Your task to perform on an android device: open the mobile data screen to see how much data has been used Image 0: 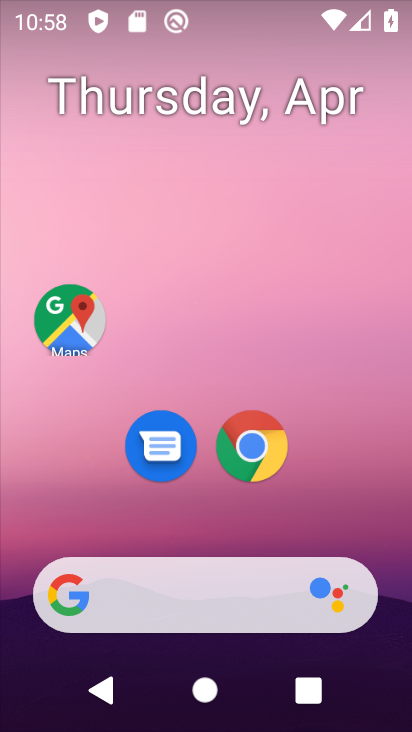
Step 0: click (211, 201)
Your task to perform on an android device: open the mobile data screen to see how much data has been used Image 1: 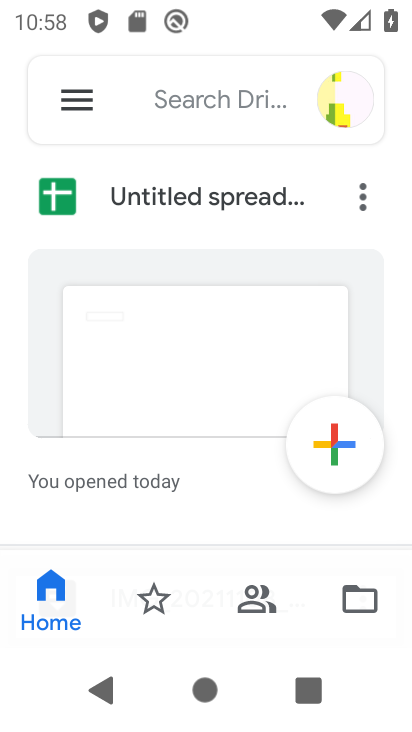
Step 1: press home button
Your task to perform on an android device: open the mobile data screen to see how much data has been used Image 2: 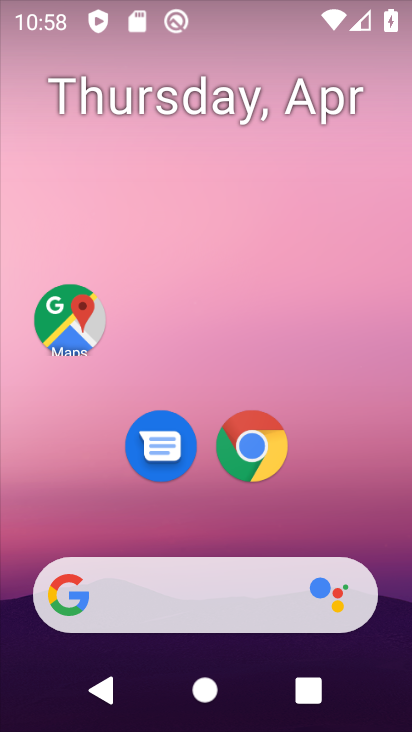
Step 2: drag from (191, 398) to (209, 117)
Your task to perform on an android device: open the mobile data screen to see how much data has been used Image 3: 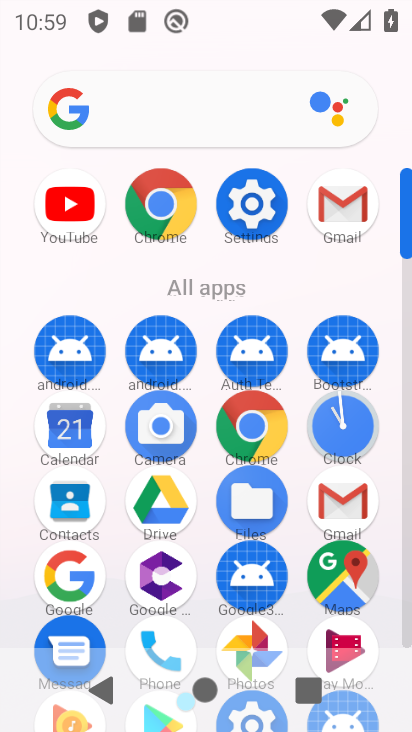
Step 3: click (240, 201)
Your task to perform on an android device: open the mobile data screen to see how much data has been used Image 4: 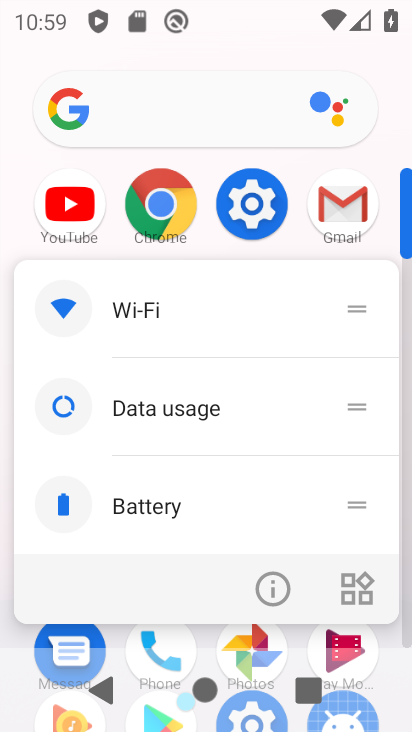
Step 4: click (266, 577)
Your task to perform on an android device: open the mobile data screen to see how much data has been used Image 5: 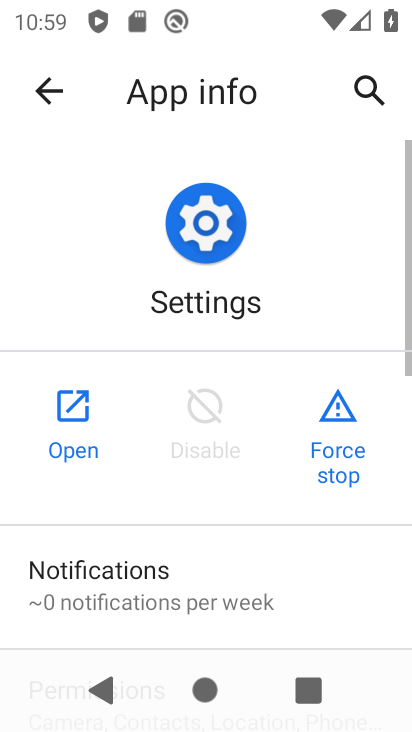
Step 5: click (46, 415)
Your task to perform on an android device: open the mobile data screen to see how much data has been used Image 6: 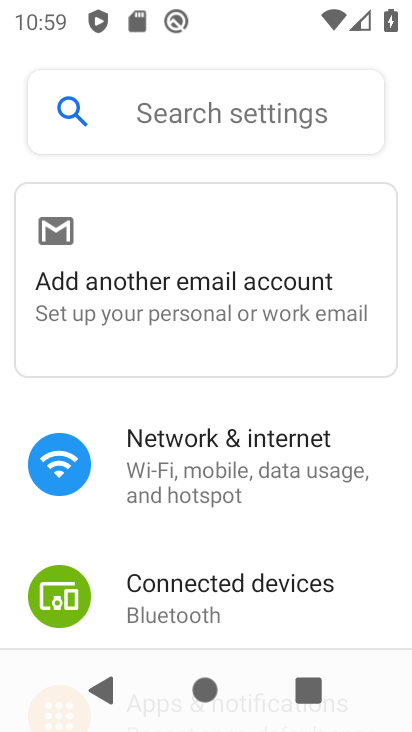
Step 6: click (192, 478)
Your task to perform on an android device: open the mobile data screen to see how much data has been used Image 7: 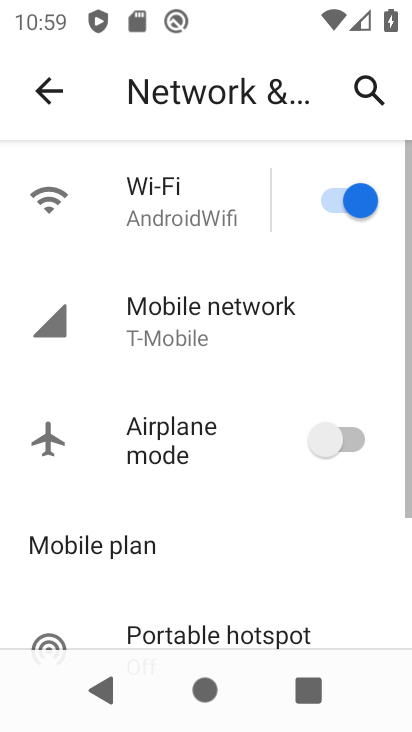
Step 7: click (245, 294)
Your task to perform on an android device: open the mobile data screen to see how much data has been used Image 8: 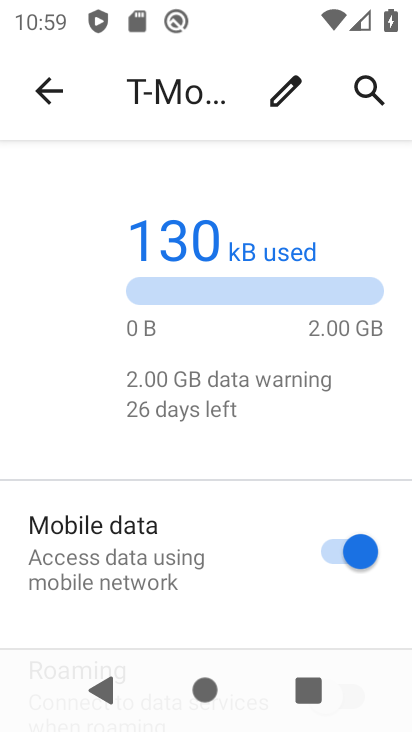
Step 8: task complete